Your task to perform on an android device: turn vacation reply on in the gmail app Image 0: 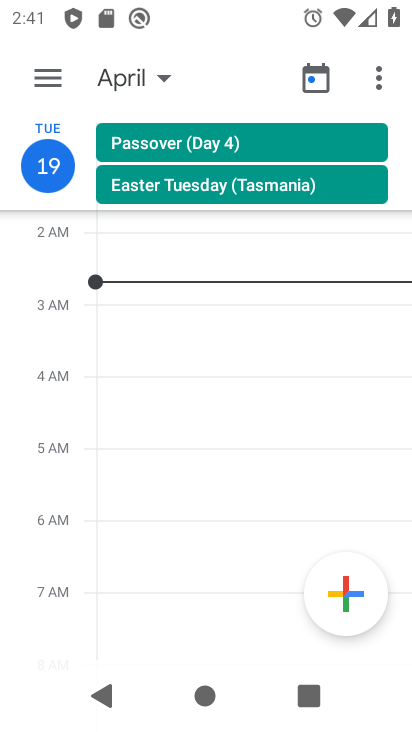
Step 0: drag from (369, 533) to (342, 136)
Your task to perform on an android device: turn vacation reply on in the gmail app Image 1: 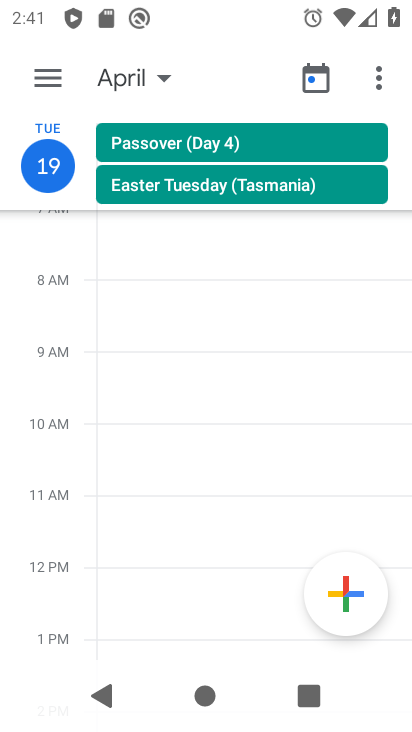
Step 1: press home button
Your task to perform on an android device: turn vacation reply on in the gmail app Image 2: 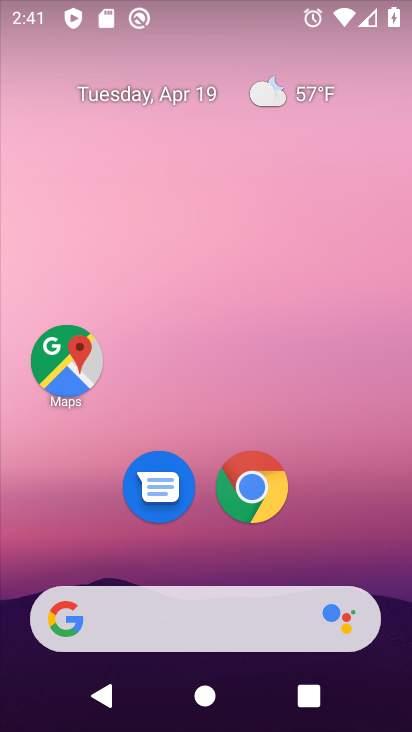
Step 2: drag from (356, 520) to (364, 77)
Your task to perform on an android device: turn vacation reply on in the gmail app Image 3: 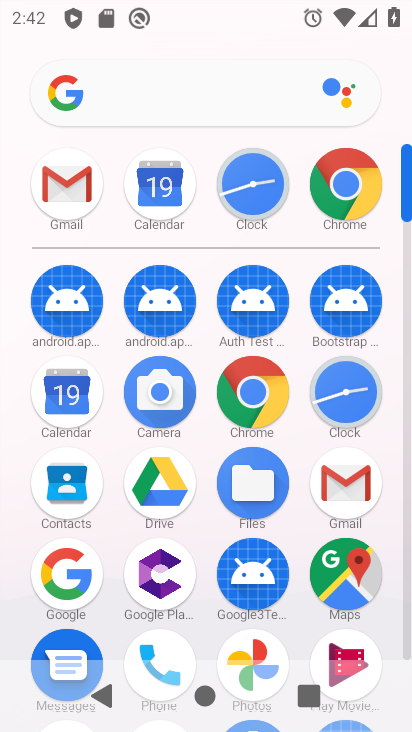
Step 3: click (346, 487)
Your task to perform on an android device: turn vacation reply on in the gmail app Image 4: 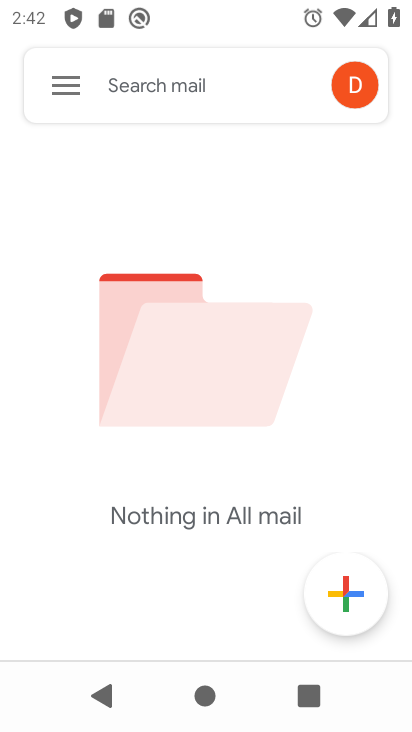
Step 4: click (56, 98)
Your task to perform on an android device: turn vacation reply on in the gmail app Image 5: 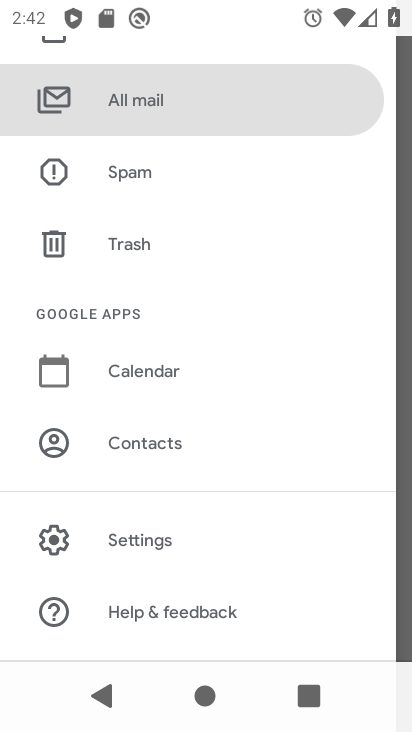
Step 5: click (165, 539)
Your task to perform on an android device: turn vacation reply on in the gmail app Image 6: 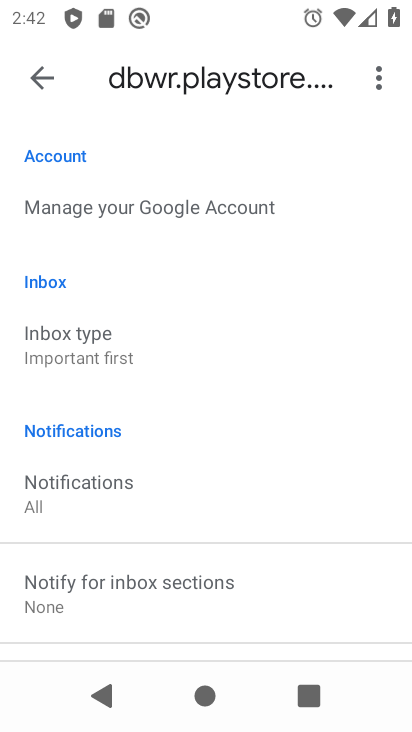
Step 6: drag from (345, 588) to (345, 242)
Your task to perform on an android device: turn vacation reply on in the gmail app Image 7: 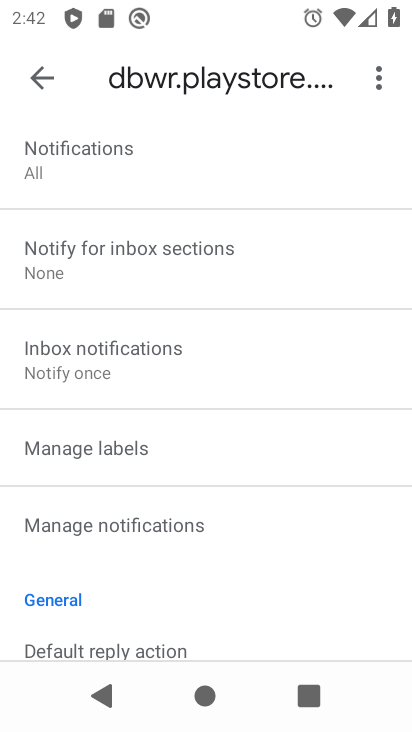
Step 7: drag from (313, 563) to (323, 240)
Your task to perform on an android device: turn vacation reply on in the gmail app Image 8: 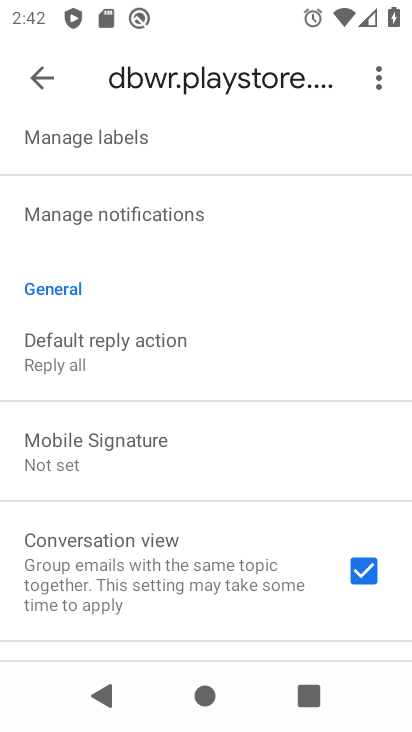
Step 8: drag from (293, 488) to (310, 244)
Your task to perform on an android device: turn vacation reply on in the gmail app Image 9: 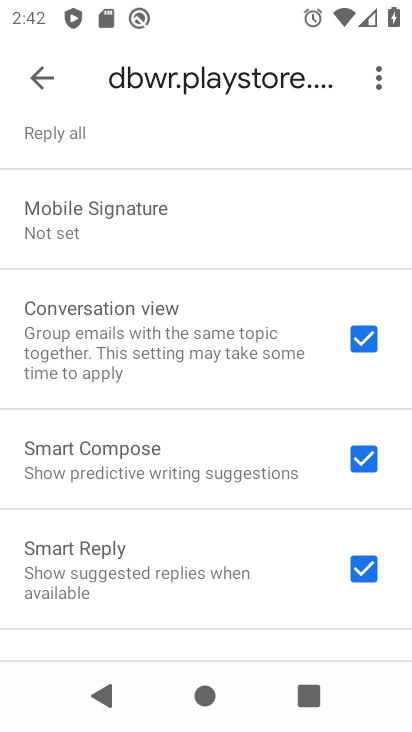
Step 9: drag from (270, 525) to (280, 288)
Your task to perform on an android device: turn vacation reply on in the gmail app Image 10: 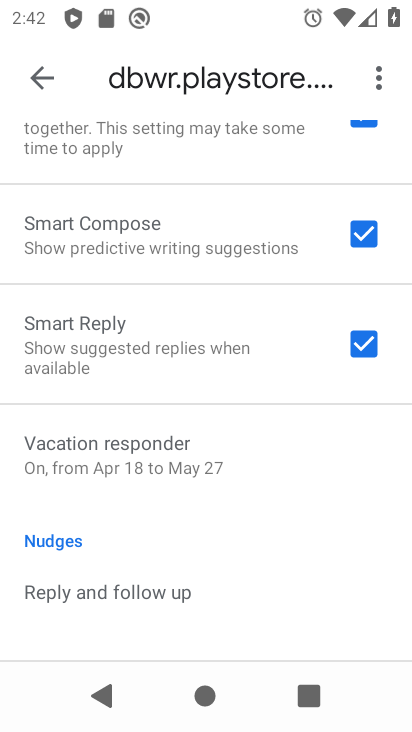
Step 10: click (197, 445)
Your task to perform on an android device: turn vacation reply on in the gmail app Image 11: 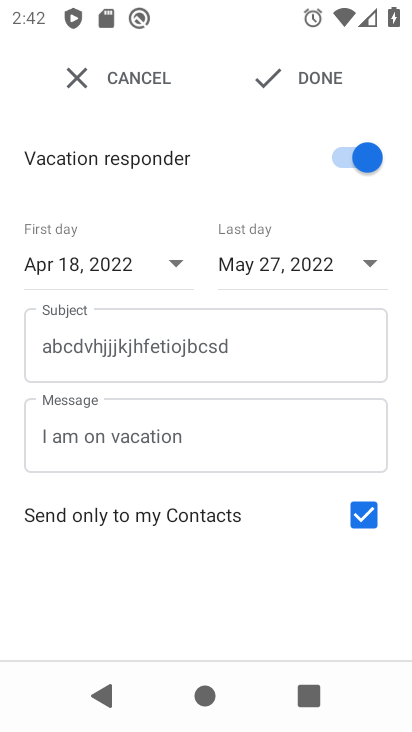
Step 11: task complete